Your task to perform on an android device: Do I have any events today? Image 0: 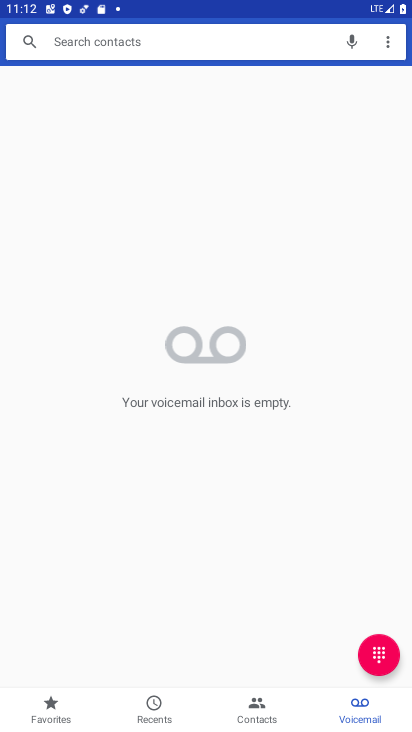
Step 0: press home button
Your task to perform on an android device: Do I have any events today? Image 1: 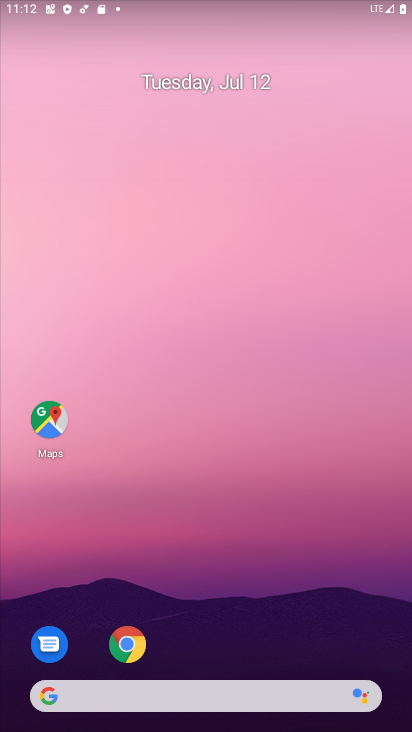
Step 1: drag from (249, 722) to (341, 29)
Your task to perform on an android device: Do I have any events today? Image 2: 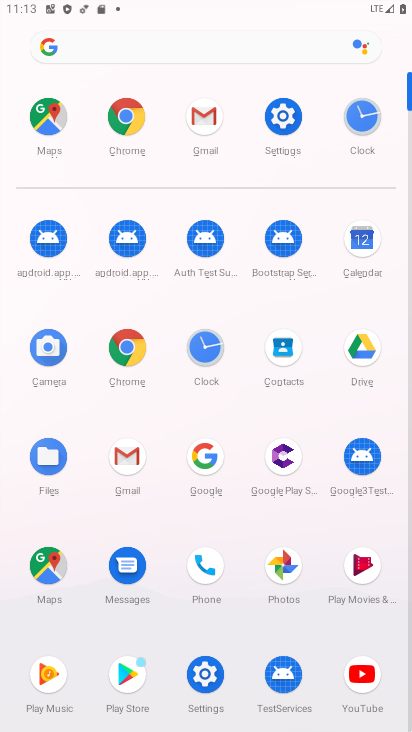
Step 2: click (365, 239)
Your task to perform on an android device: Do I have any events today? Image 3: 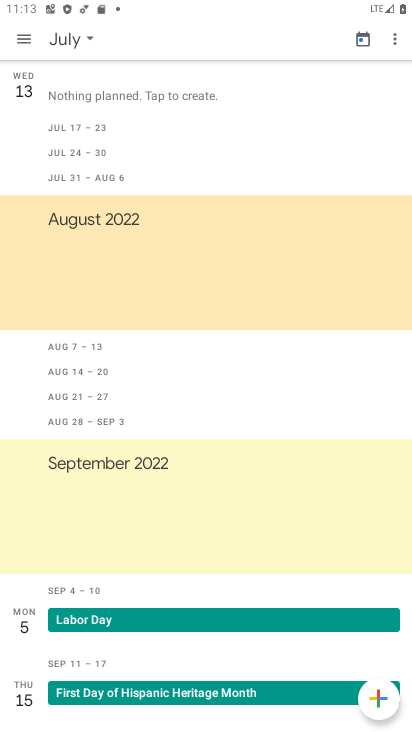
Step 3: click (72, 40)
Your task to perform on an android device: Do I have any events today? Image 4: 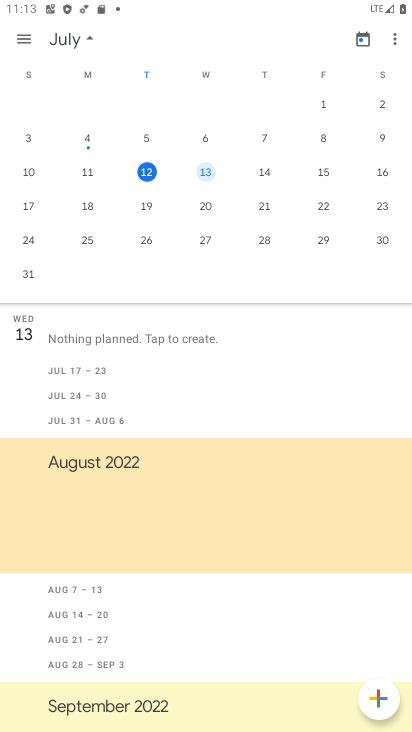
Step 4: click (143, 168)
Your task to perform on an android device: Do I have any events today? Image 5: 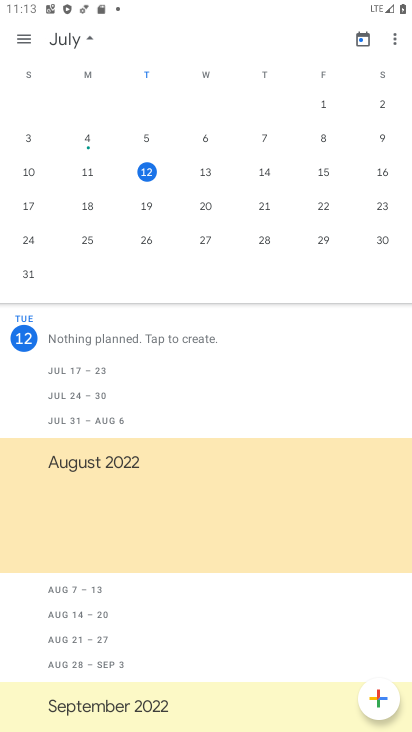
Step 5: task complete